Your task to perform on an android device: open a bookmark in the chrome app Image 0: 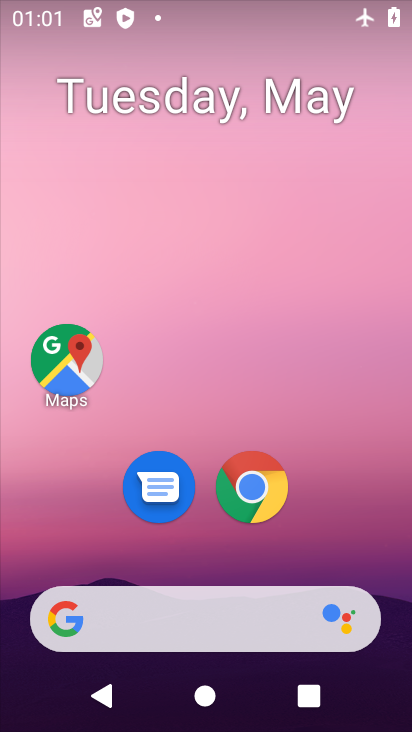
Step 0: click (247, 483)
Your task to perform on an android device: open a bookmark in the chrome app Image 1: 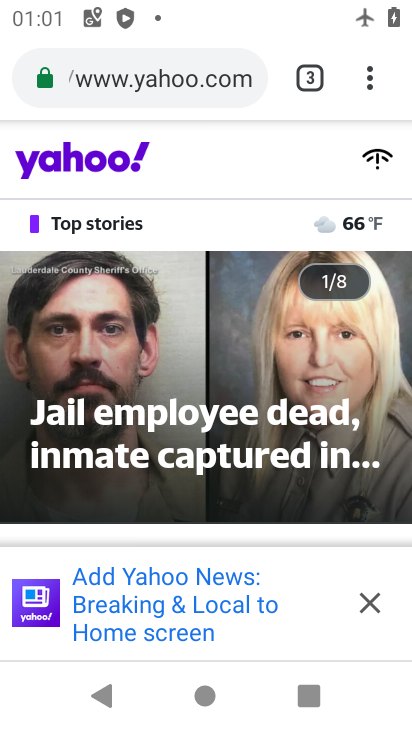
Step 1: click (377, 67)
Your task to perform on an android device: open a bookmark in the chrome app Image 2: 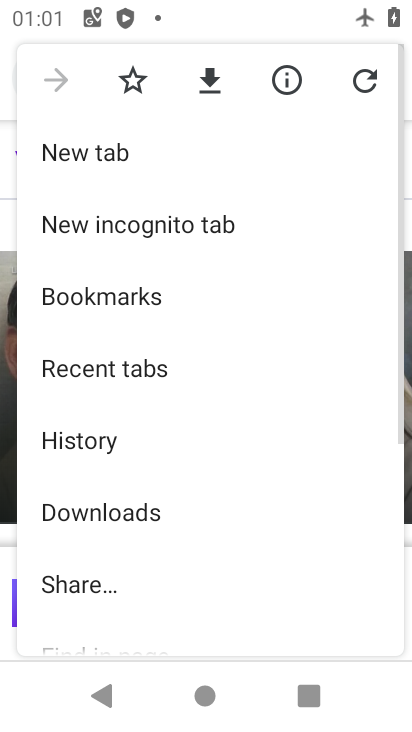
Step 2: click (183, 300)
Your task to perform on an android device: open a bookmark in the chrome app Image 3: 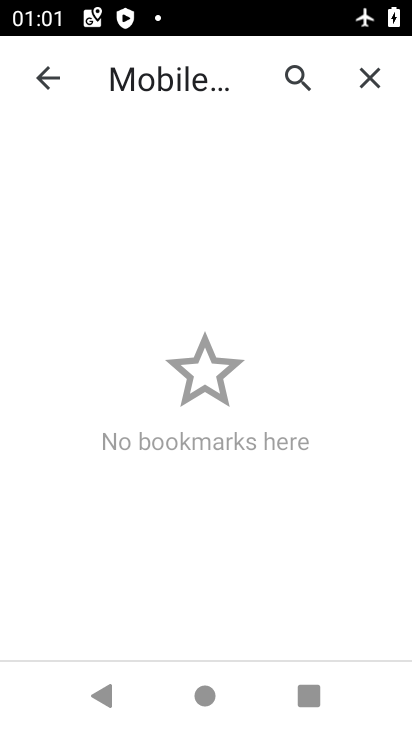
Step 3: task complete